Your task to perform on an android device: set an alarm Image 0: 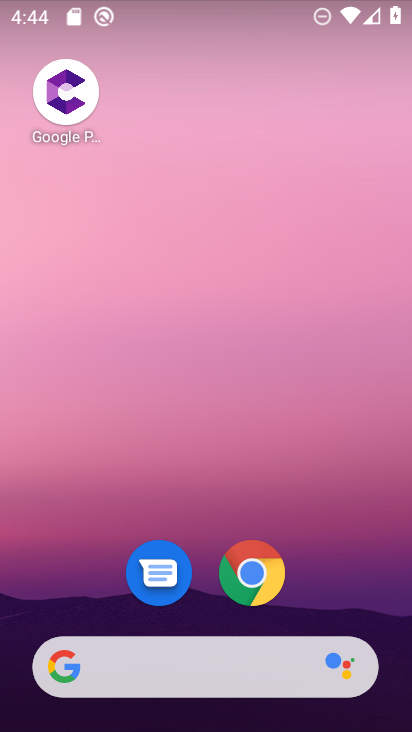
Step 0: drag from (354, 491) to (304, 8)
Your task to perform on an android device: set an alarm Image 1: 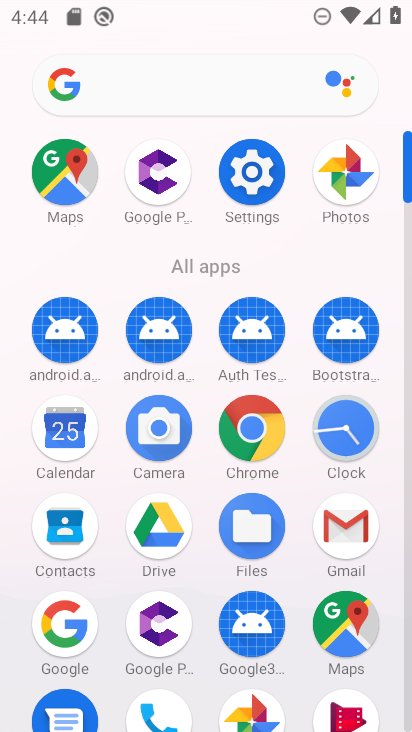
Step 1: click (340, 433)
Your task to perform on an android device: set an alarm Image 2: 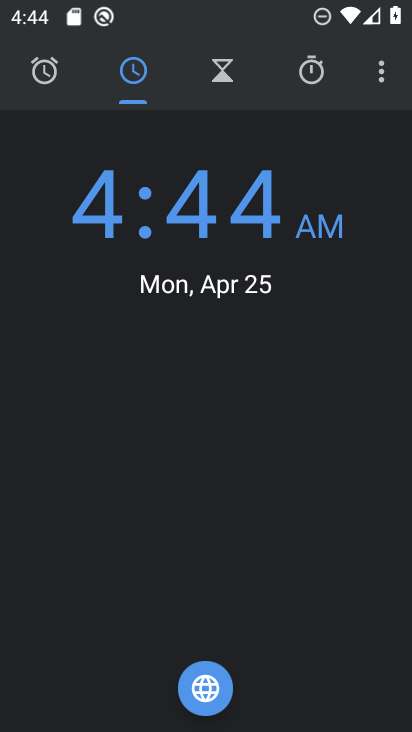
Step 2: click (52, 79)
Your task to perform on an android device: set an alarm Image 3: 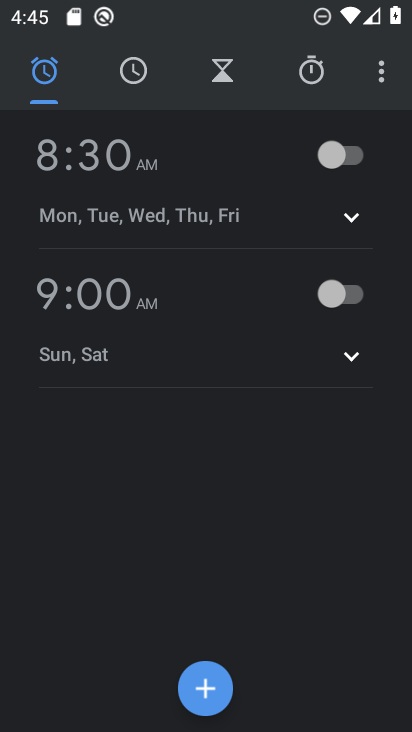
Step 3: click (198, 697)
Your task to perform on an android device: set an alarm Image 4: 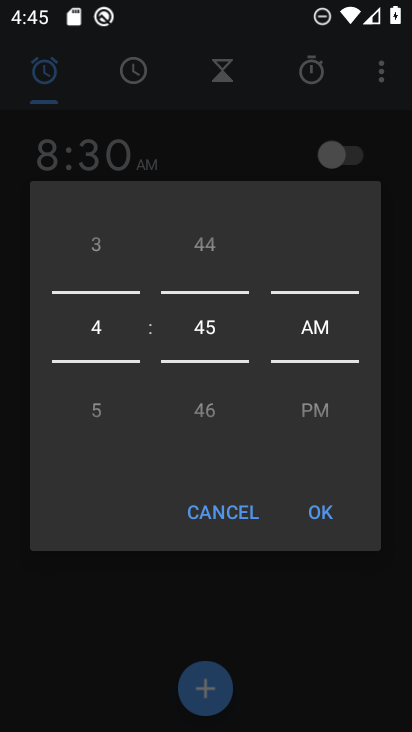
Step 4: drag from (101, 409) to (106, 299)
Your task to perform on an android device: set an alarm Image 5: 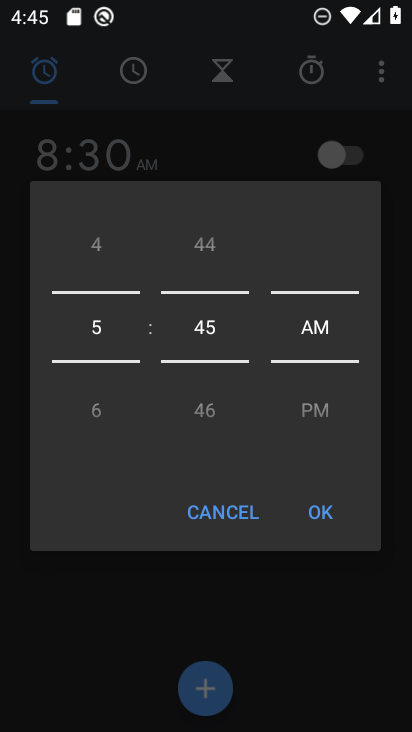
Step 5: drag from (208, 361) to (190, 508)
Your task to perform on an android device: set an alarm Image 6: 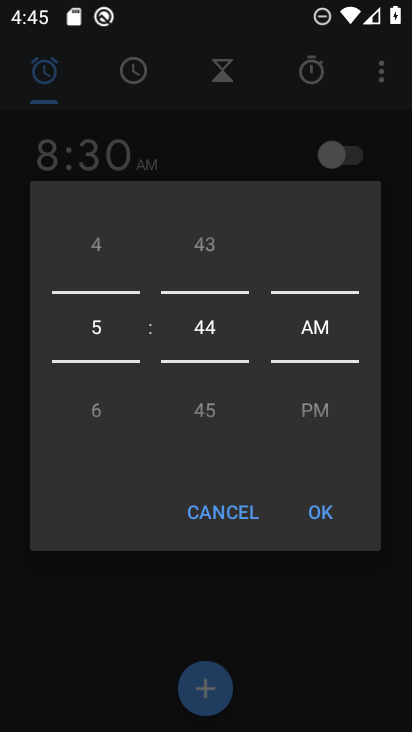
Step 6: drag from (205, 312) to (190, 533)
Your task to perform on an android device: set an alarm Image 7: 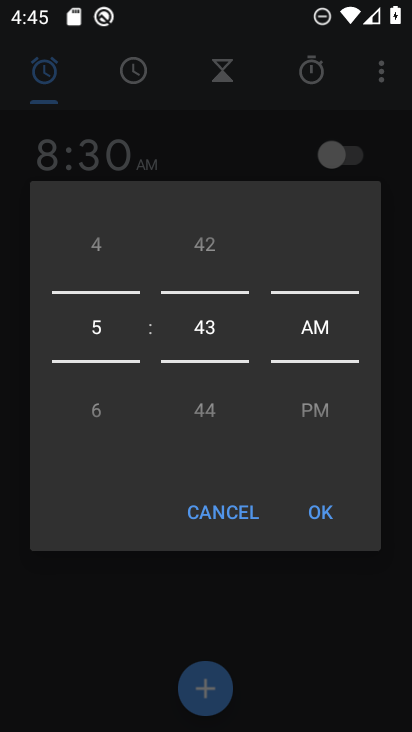
Step 7: drag from (212, 382) to (217, 247)
Your task to perform on an android device: set an alarm Image 8: 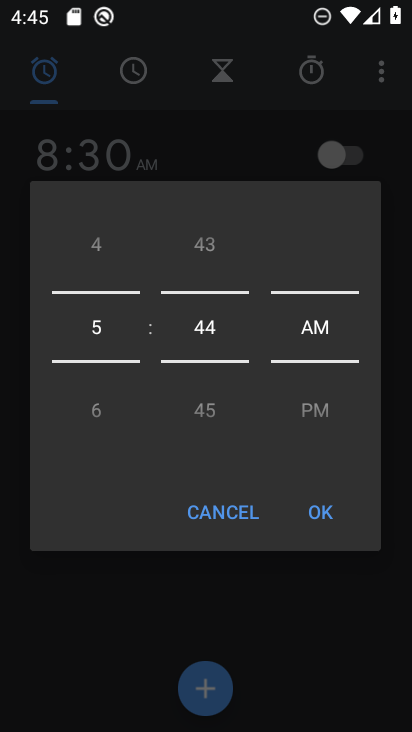
Step 8: drag from (199, 367) to (215, 202)
Your task to perform on an android device: set an alarm Image 9: 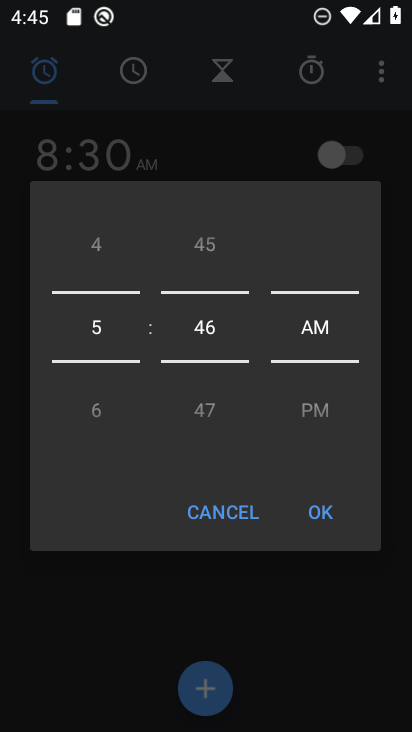
Step 9: drag from (202, 341) to (202, 388)
Your task to perform on an android device: set an alarm Image 10: 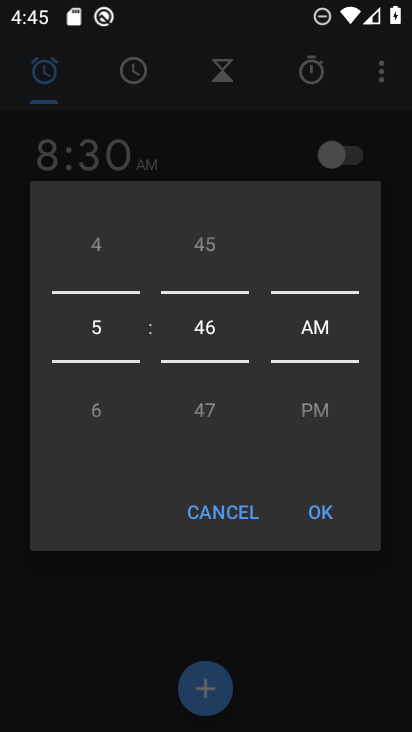
Step 10: drag from (199, 331) to (187, 464)
Your task to perform on an android device: set an alarm Image 11: 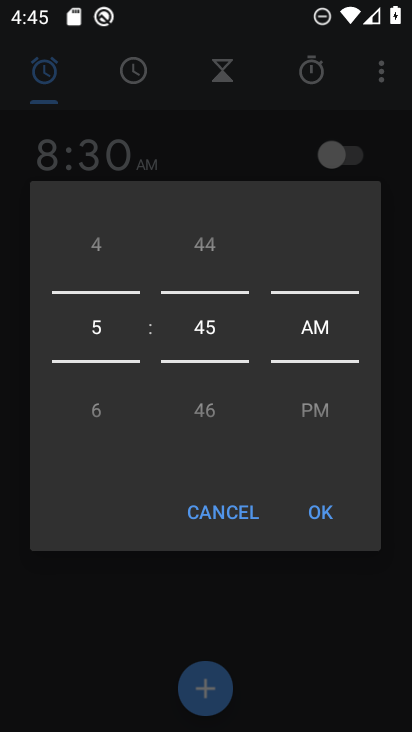
Step 11: click (334, 513)
Your task to perform on an android device: set an alarm Image 12: 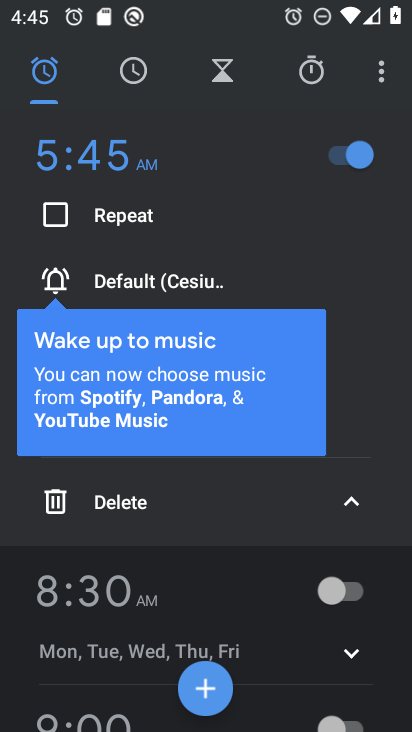
Step 12: task complete